Your task to perform on an android device: turn on priority inbox in the gmail app Image 0: 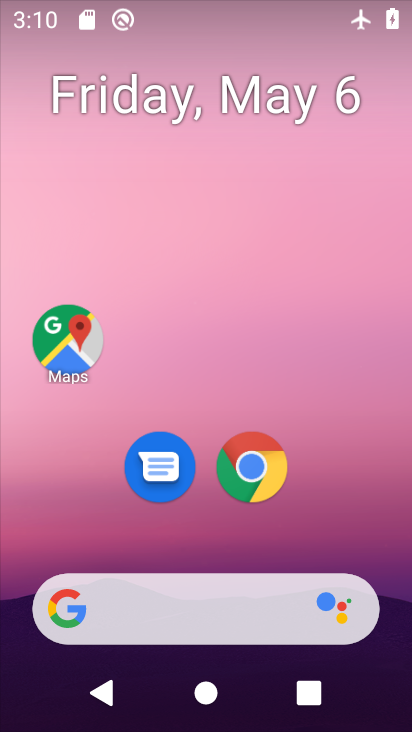
Step 0: drag from (395, 567) to (388, 272)
Your task to perform on an android device: turn on priority inbox in the gmail app Image 1: 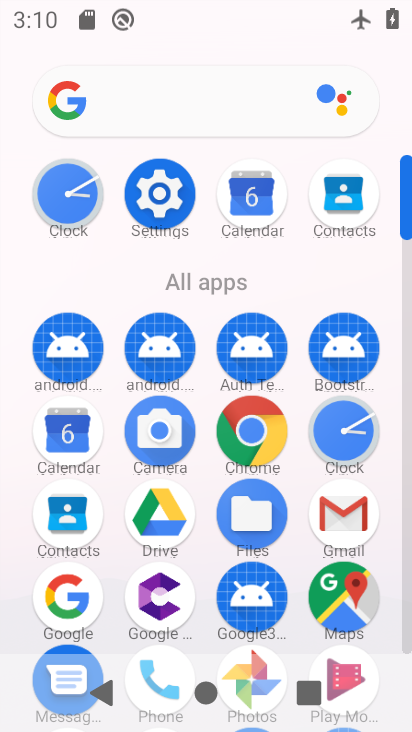
Step 1: click (354, 509)
Your task to perform on an android device: turn on priority inbox in the gmail app Image 2: 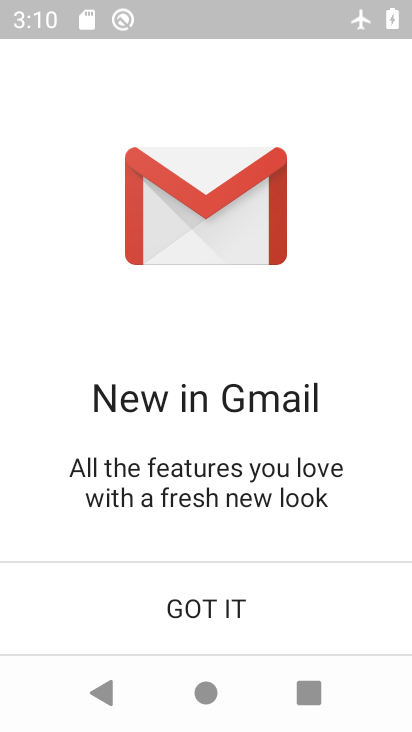
Step 2: click (189, 606)
Your task to perform on an android device: turn on priority inbox in the gmail app Image 3: 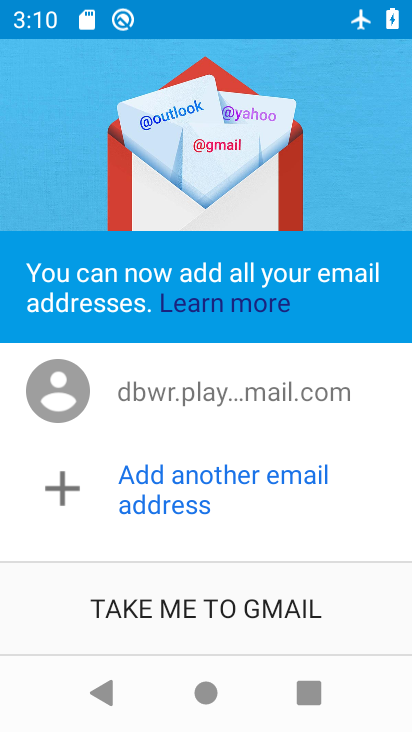
Step 3: click (190, 598)
Your task to perform on an android device: turn on priority inbox in the gmail app Image 4: 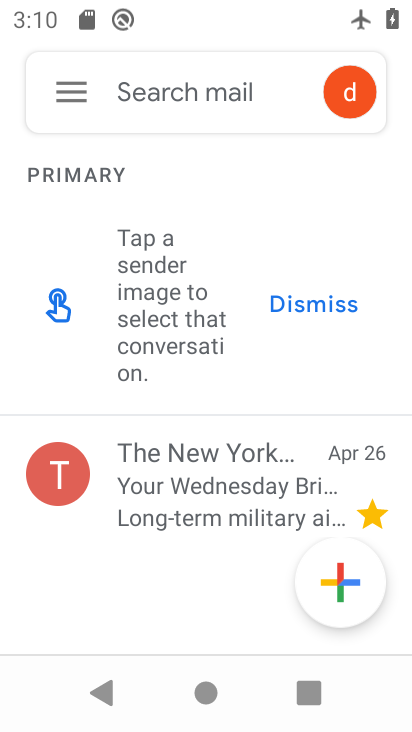
Step 4: click (71, 94)
Your task to perform on an android device: turn on priority inbox in the gmail app Image 5: 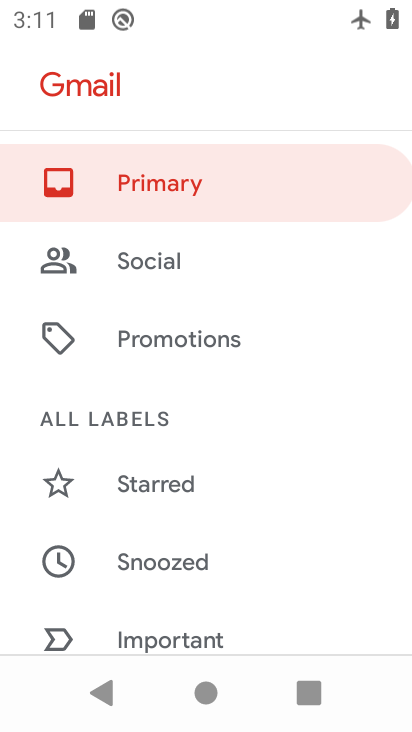
Step 5: drag from (321, 615) to (348, 290)
Your task to perform on an android device: turn on priority inbox in the gmail app Image 6: 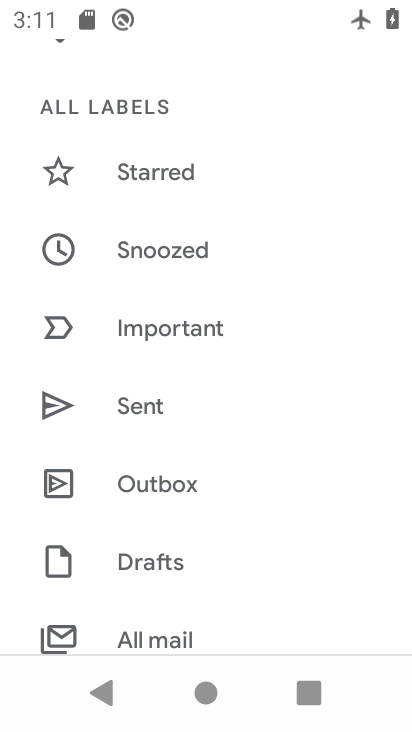
Step 6: drag from (295, 629) to (328, 254)
Your task to perform on an android device: turn on priority inbox in the gmail app Image 7: 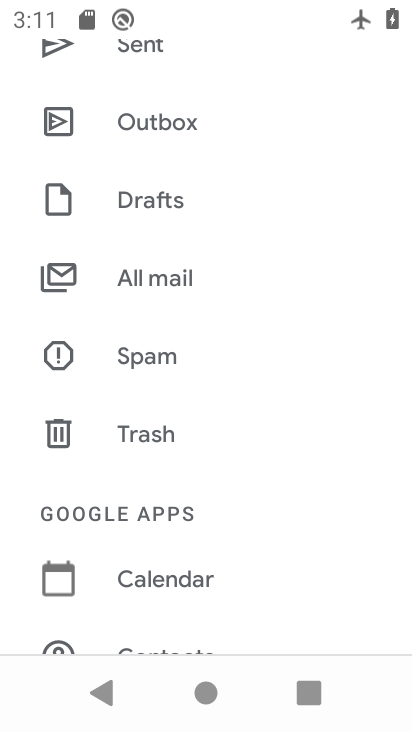
Step 7: drag from (323, 593) to (325, 380)
Your task to perform on an android device: turn on priority inbox in the gmail app Image 8: 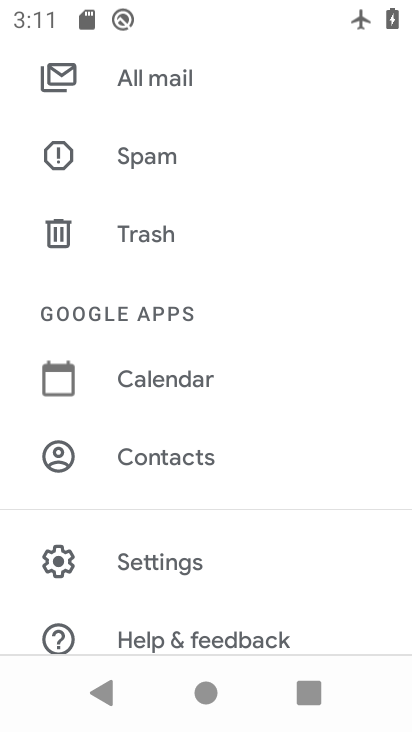
Step 8: click (145, 560)
Your task to perform on an android device: turn on priority inbox in the gmail app Image 9: 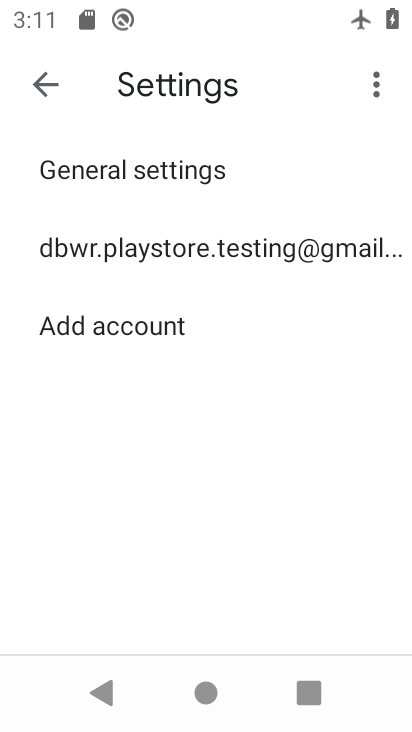
Step 9: click (116, 245)
Your task to perform on an android device: turn on priority inbox in the gmail app Image 10: 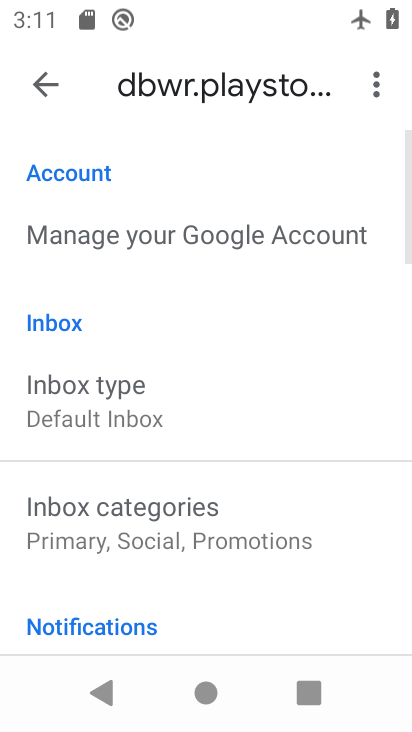
Step 10: drag from (333, 617) to (368, 317)
Your task to perform on an android device: turn on priority inbox in the gmail app Image 11: 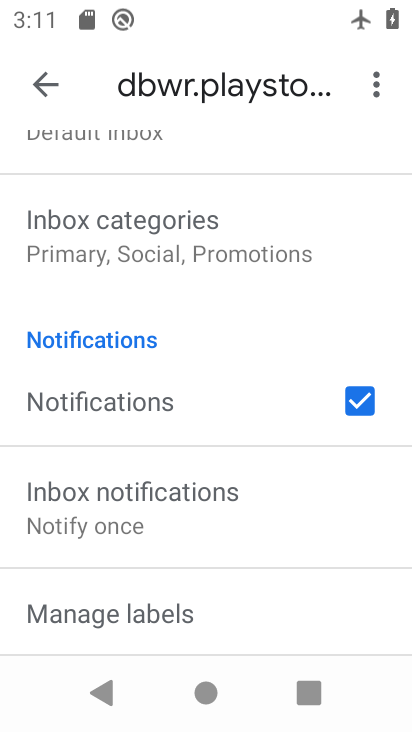
Step 11: drag from (262, 282) to (230, 625)
Your task to perform on an android device: turn on priority inbox in the gmail app Image 12: 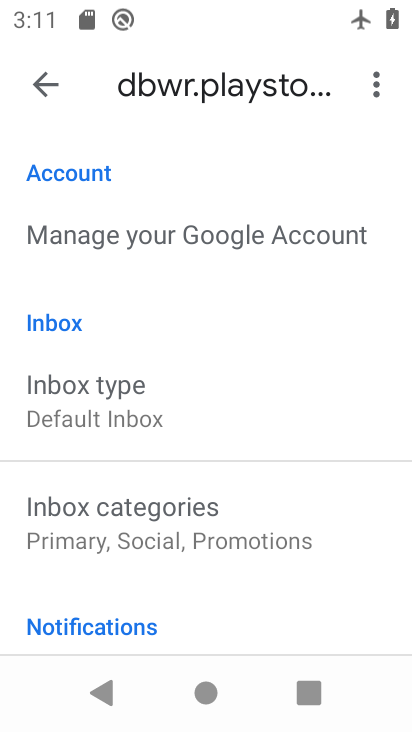
Step 12: click (69, 403)
Your task to perform on an android device: turn on priority inbox in the gmail app Image 13: 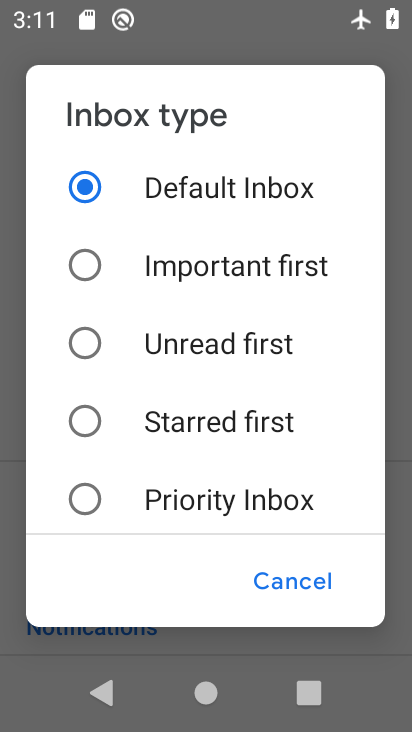
Step 13: click (295, 572)
Your task to perform on an android device: turn on priority inbox in the gmail app Image 14: 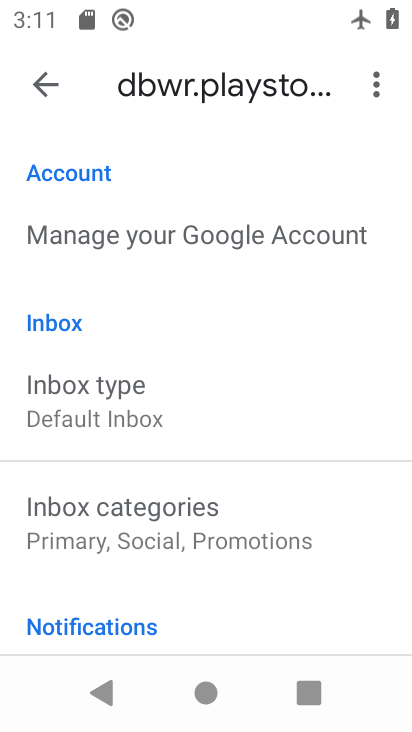
Step 14: click (73, 532)
Your task to perform on an android device: turn on priority inbox in the gmail app Image 15: 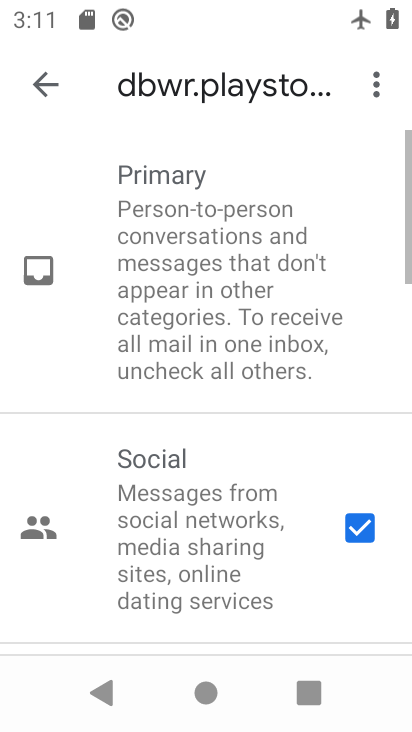
Step 15: click (370, 541)
Your task to perform on an android device: turn on priority inbox in the gmail app Image 16: 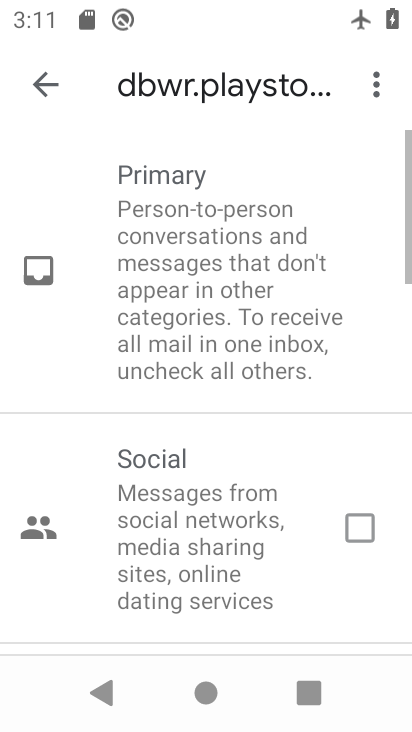
Step 16: drag from (336, 544) to (344, 314)
Your task to perform on an android device: turn on priority inbox in the gmail app Image 17: 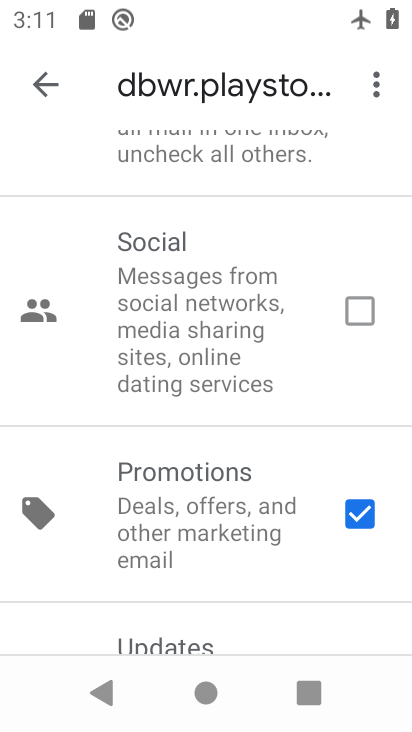
Step 17: click (349, 509)
Your task to perform on an android device: turn on priority inbox in the gmail app Image 18: 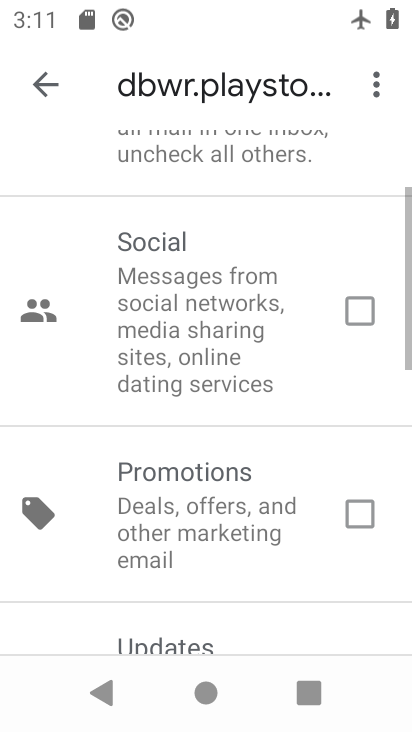
Step 18: drag from (284, 626) to (279, 458)
Your task to perform on an android device: turn on priority inbox in the gmail app Image 19: 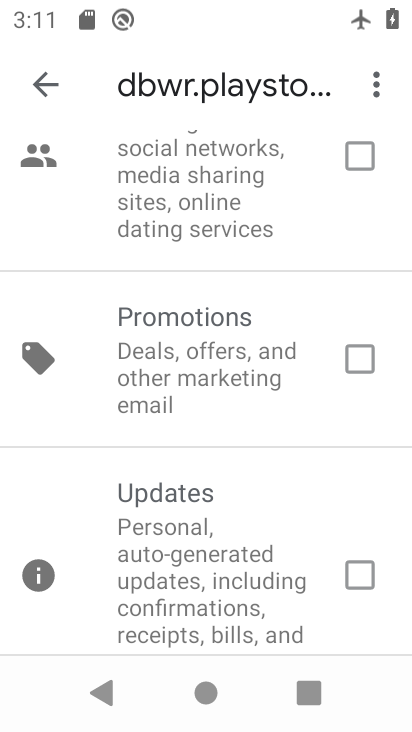
Step 19: click (41, 92)
Your task to perform on an android device: turn on priority inbox in the gmail app Image 20: 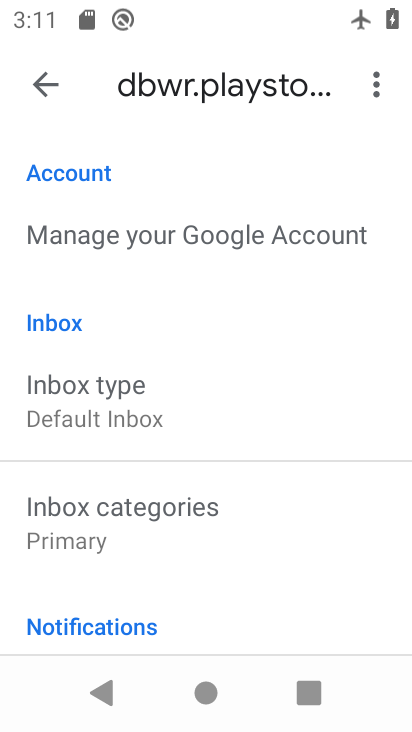
Step 20: task complete